Your task to perform on an android device: Go to Wikipedia Image 0: 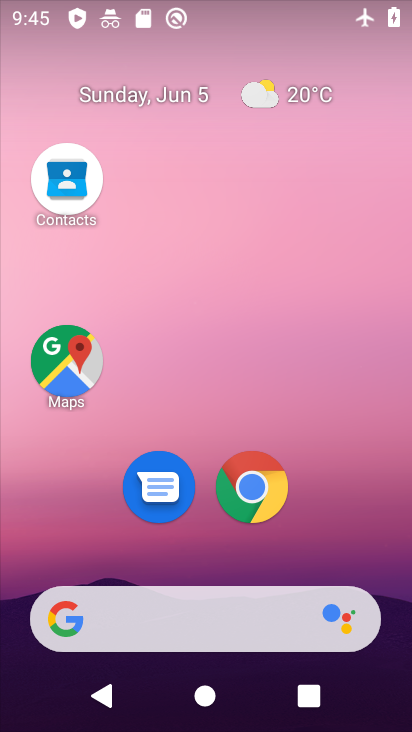
Step 0: drag from (251, 536) to (245, 60)
Your task to perform on an android device: Go to Wikipedia Image 1: 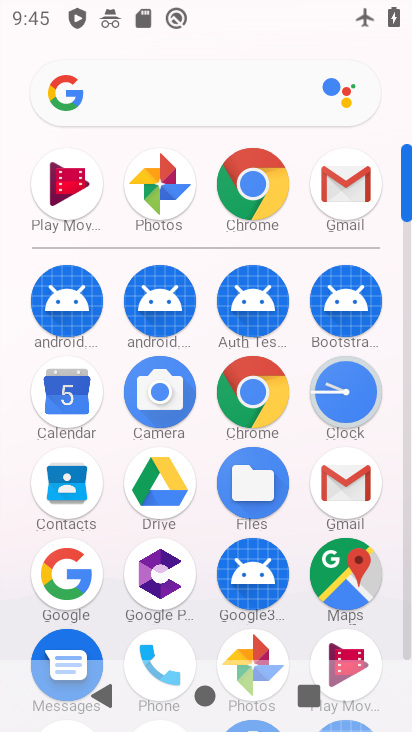
Step 1: click (249, 220)
Your task to perform on an android device: Go to Wikipedia Image 2: 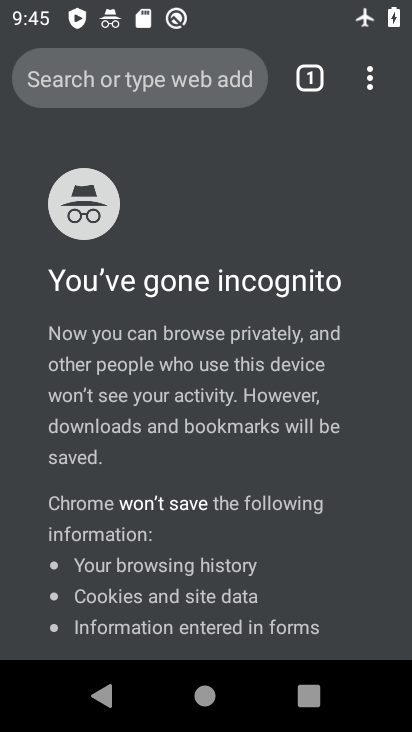
Step 2: drag from (310, 77) to (311, 381)
Your task to perform on an android device: Go to Wikipedia Image 3: 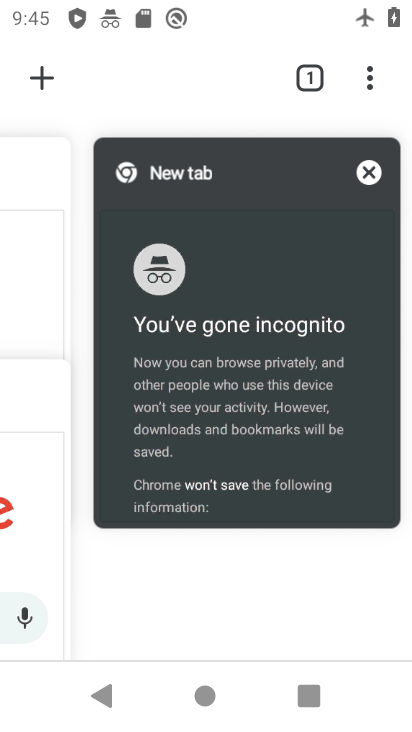
Step 3: click (36, 238)
Your task to perform on an android device: Go to Wikipedia Image 4: 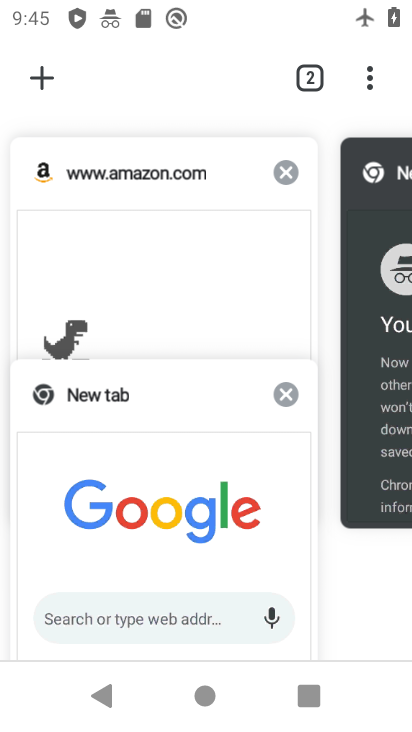
Step 4: click (141, 473)
Your task to perform on an android device: Go to Wikipedia Image 5: 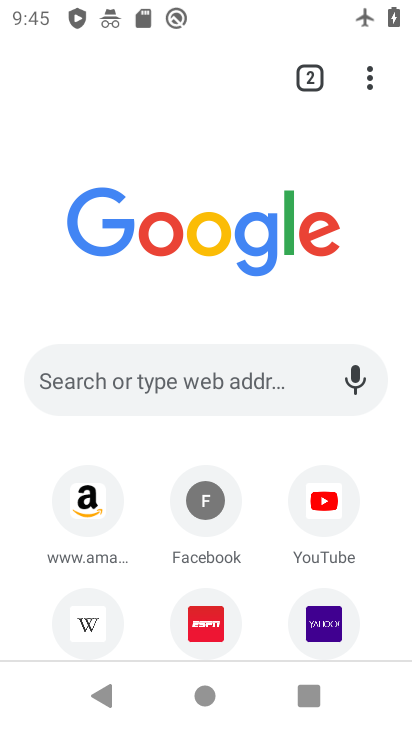
Step 5: click (88, 603)
Your task to perform on an android device: Go to Wikipedia Image 6: 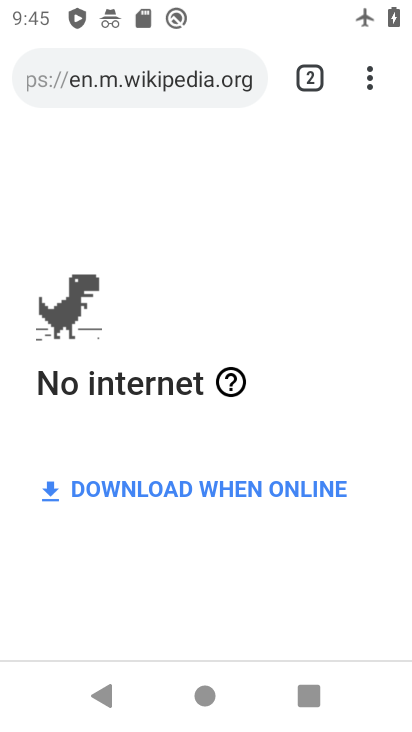
Step 6: task complete